Your task to perform on an android device: turn off airplane mode Image 0: 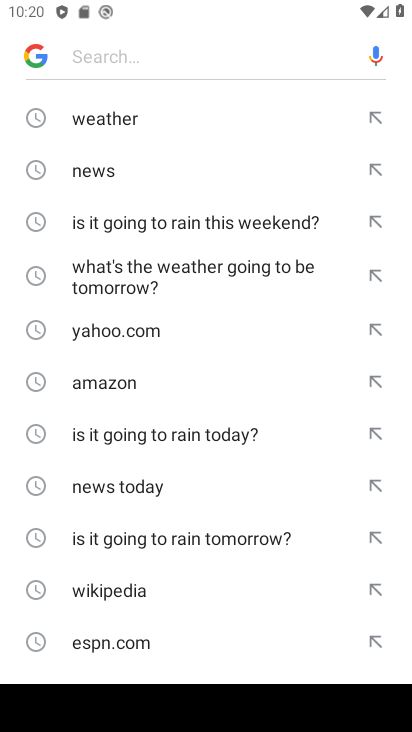
Step 0: press home button
Your task to perform on an android device: turn off airplane mode Image 1: 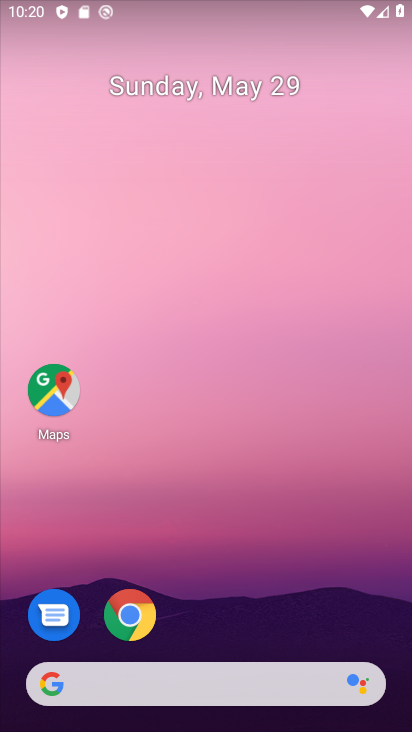
Step 1: drag from (356, 619) to (382, 108)
Your task to perform on an android device: turn off airplane mode Image 2: 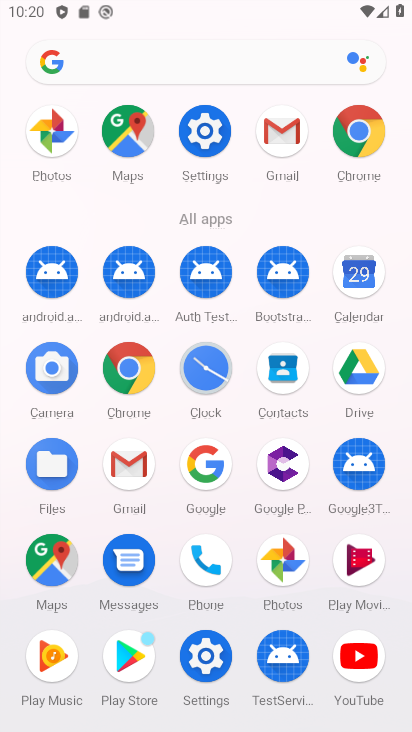
Step 2: click (194, 669)
Your task to perform on an android device: turn off airplane mode Image 3: 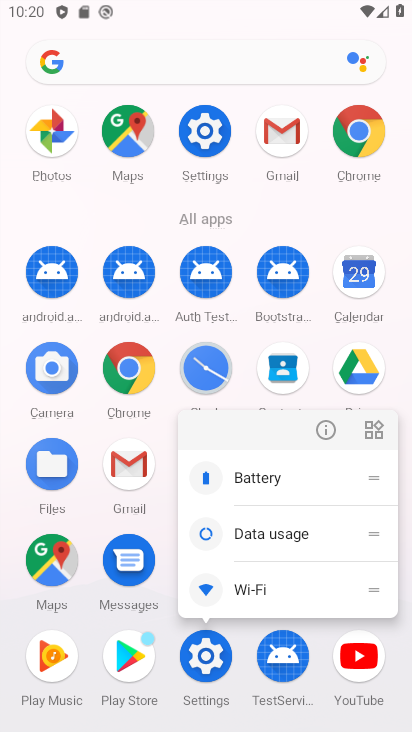
Step 3: click (194, 669)
Your task to perform on an android device: turn off airplane mode Image 4: 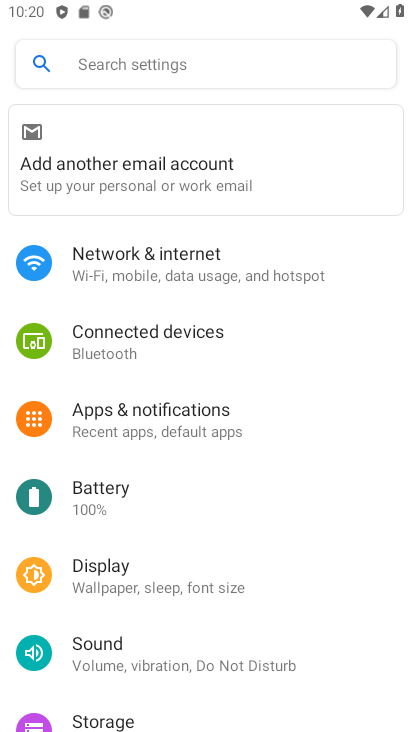
Step 4: drag from (340, 511) to (359, 412)
Your task to perform on an android device: turn off airplane mode Image 5: 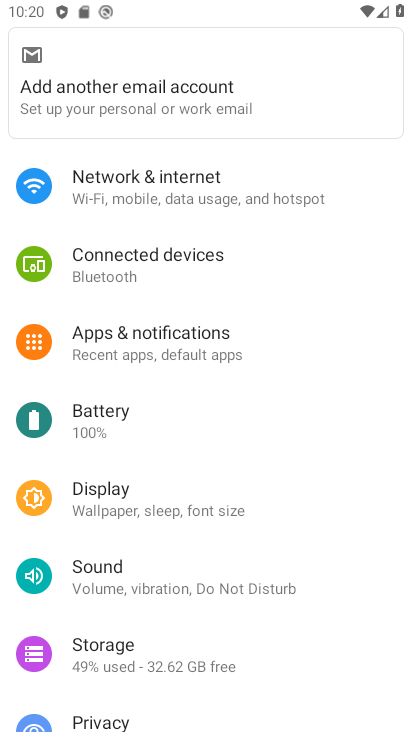
Step 5: drag from (367, 617) to (376, 507)
Your task to perform on an android device: turn off airplane mode Image 6: 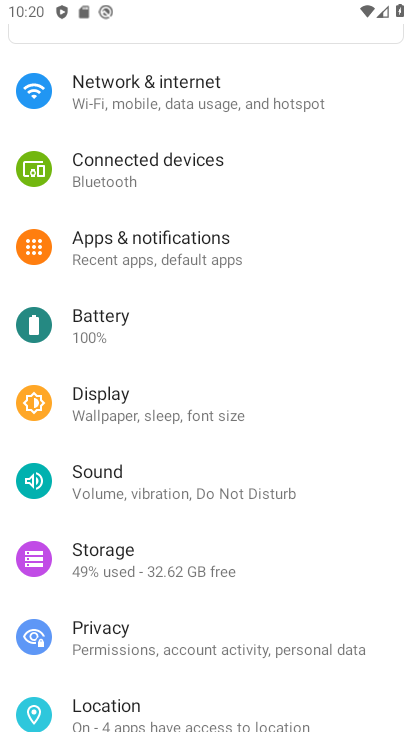
Step 6: drag from (371, 678) to (374, 573)
Your task to perform on an android device: turn off airplane mode Image 7: 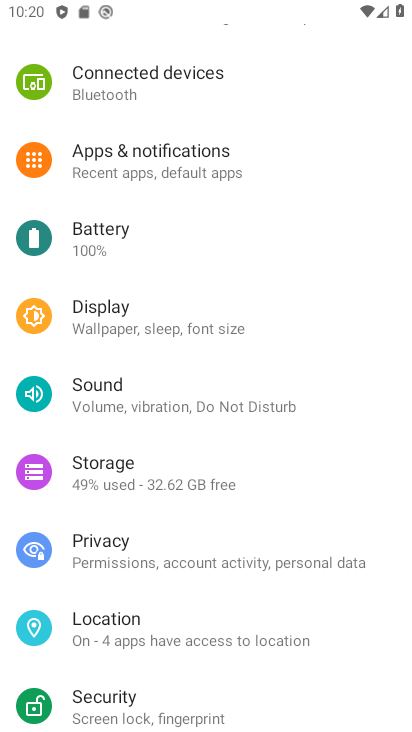
Step 7: drag from (360, 675) to (365, 506)
Your task to perform on an android device: turn off airplane mode Image 8: 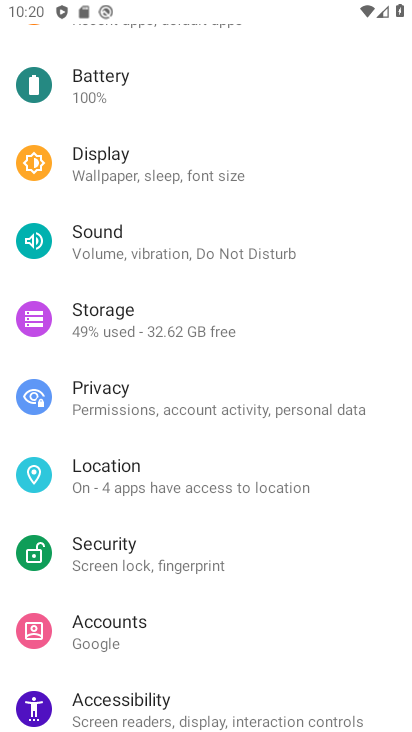
Step 8: drag from (360, 637) to (370, 535)
Your task to perform on an android device: turn off airplane mode Image 9: 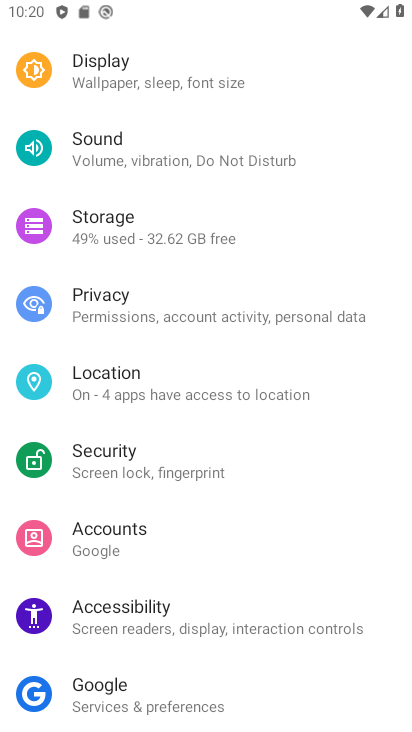
Step 9: drag from (363, 680) to (363, 539)
Your task to perform on an android device: turn off airplane mode Image 10: 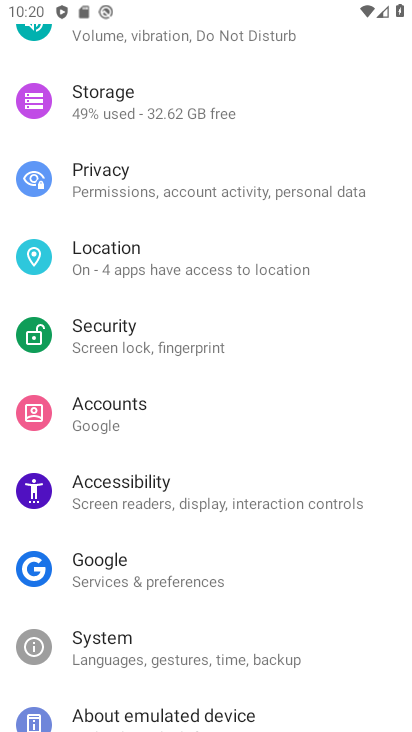
Step 10: drag from (354, 653) to (351, 538)
Your task to perform on an android device: turn off airplane mode Image 11: 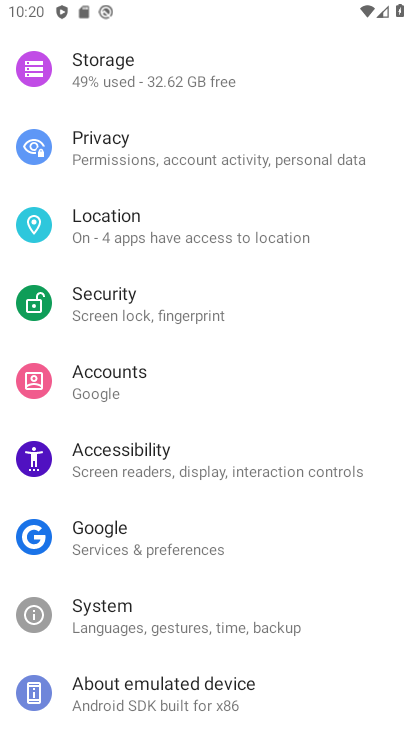
Step 11: drag from (351, 336) to (355, 424)
Your task to perform on an android device: turn off airplane mode Image 12: 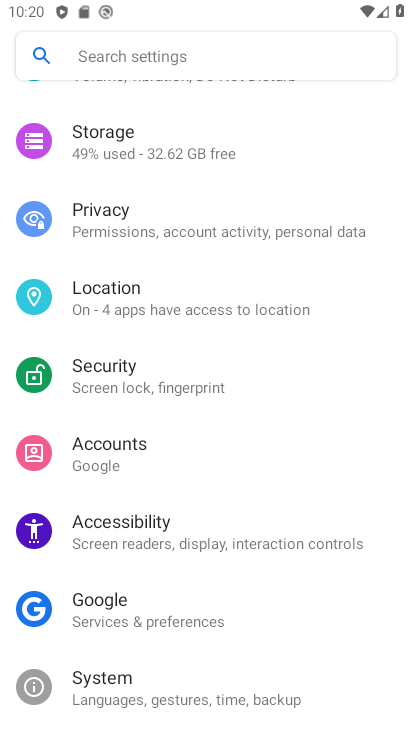
Step 12: drag from (354, 305) to (359, 417)
Your task to perform on an android device: turn off airplane mode Image 13: 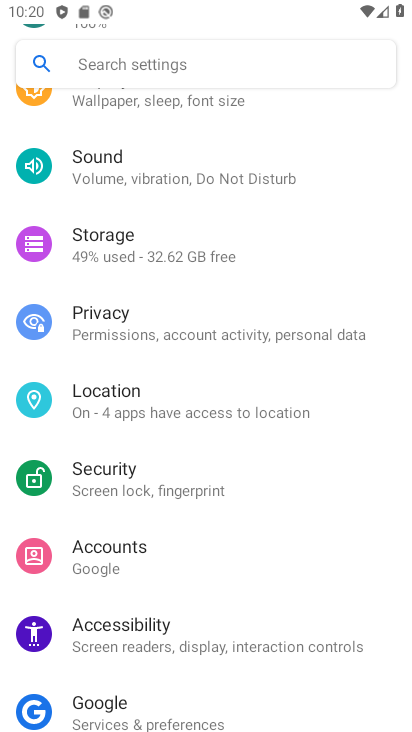
Step 13: drag from (352, 256) to (353, 373)
Your task to perform on an android device: turn off airplane mode Image 14: 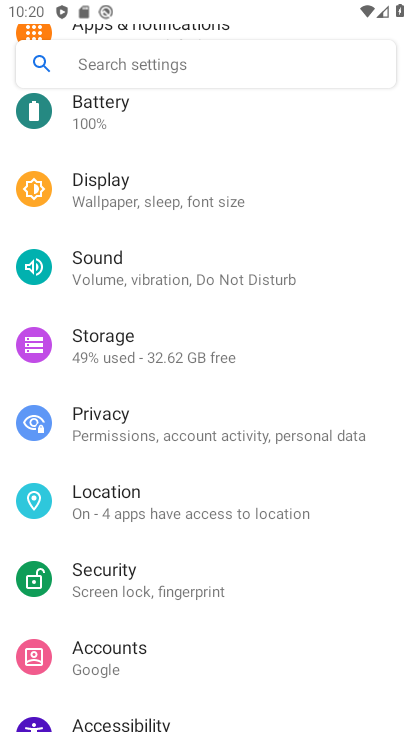
Step 14: drag from (336, 227) to (346, 327)
Your task to perform on an android device: turn off airplane mode Image 15: 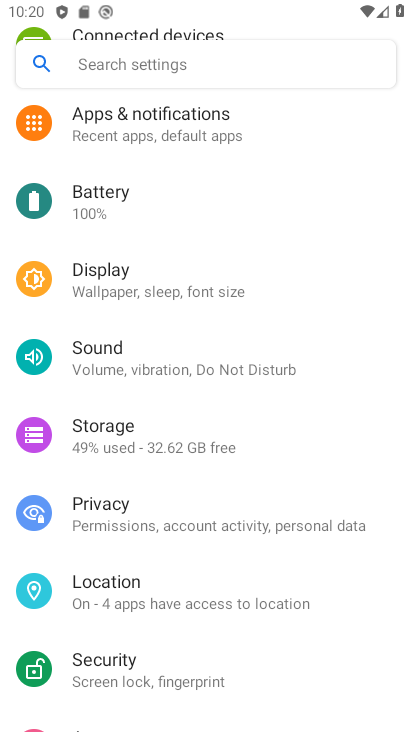
Step 15: drag from (328, 171) to (336, 295)
Your task to perform on an android device: turn off airplane mode Image 16: 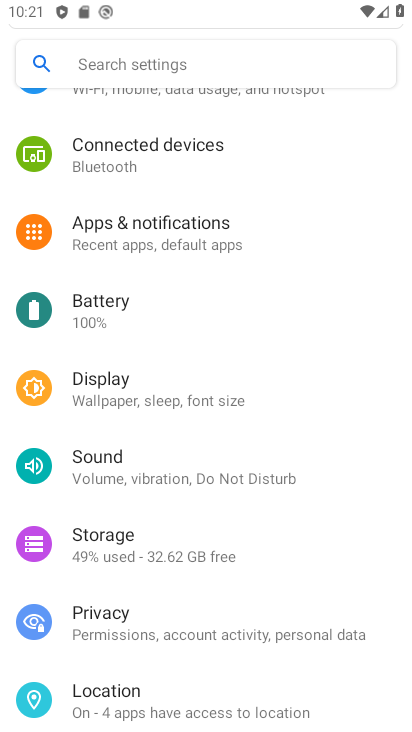
Step 16: drag from (332, 172) to (343, 308)
Your task to perform on an android device: turn off airplane mode Image 17: 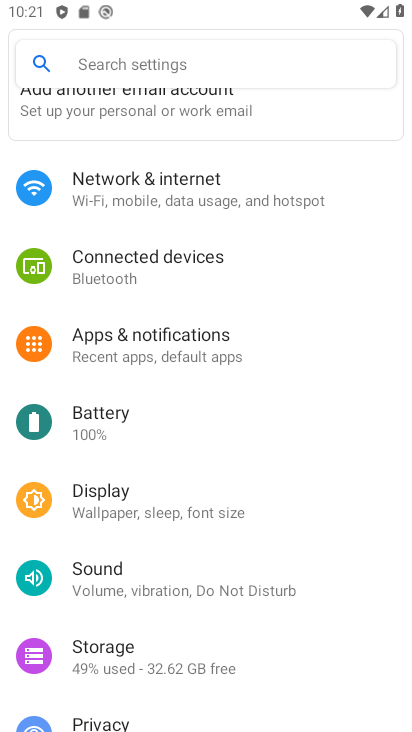
Step 17: drag from (349, 172) to (357, 343)
Your task to perform on an android device: turn off airplane mode Image 18: 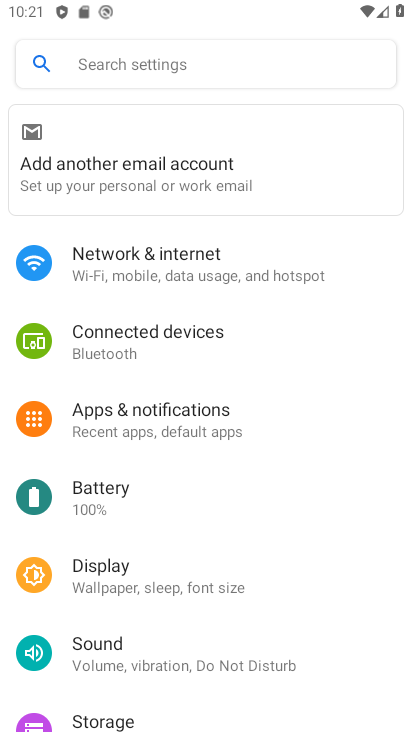
Step 18: click (216, 253)
Your task to perform on an android device: turn off airplane mode Image 19: 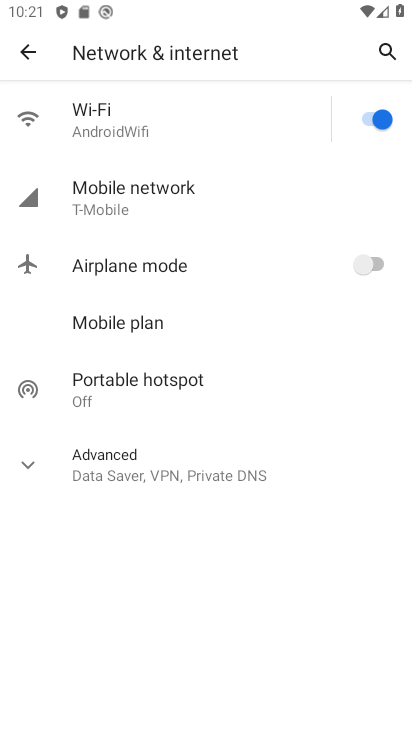
Step 19: task complete